Your task to perform on an android device: toggle show notifications on the lock screen Image 0: 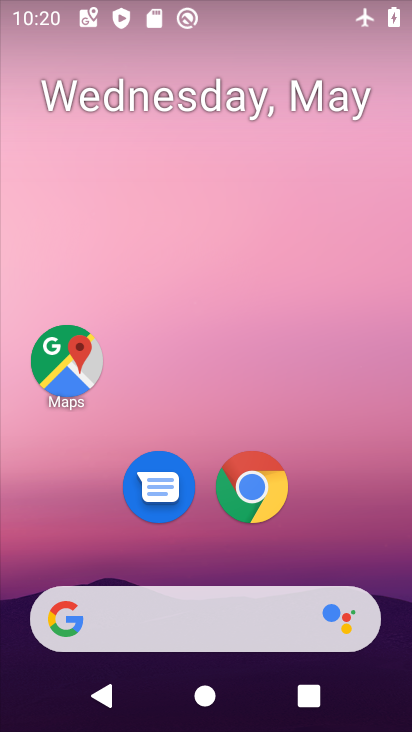
Step 0: drag from (199, 556) to (194, 4)
Your task to perform on an android device: toggle show notifications on the lock screen Image 1: 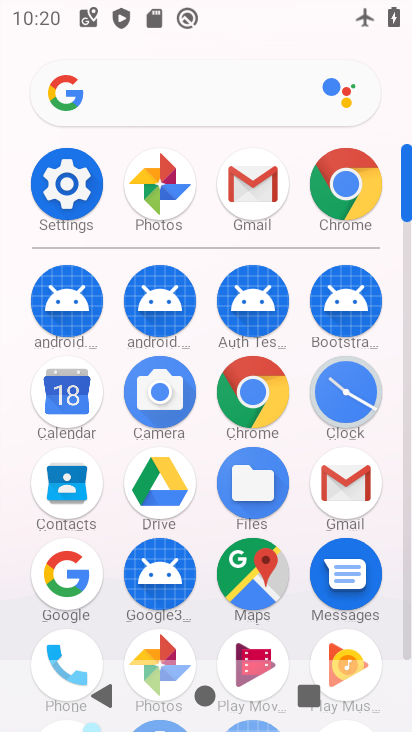
Step 1: click (69, 207)
Your task to perform on an android device: toggle show notifications on the lock screen Image 2: 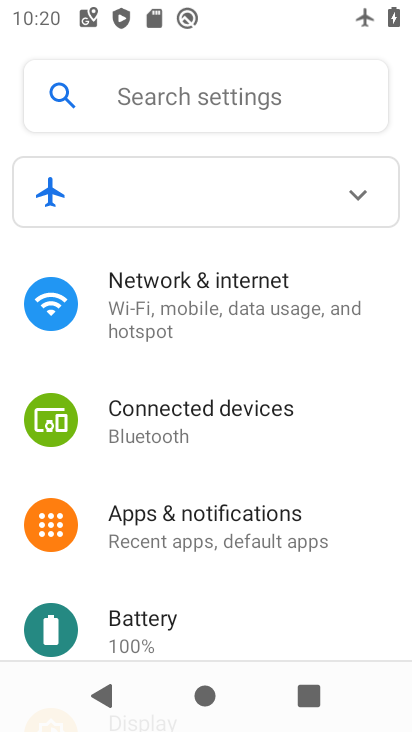
Step 2: drag from (273, 566) to (265, 481)
Your task to perform on an android device: toggle show notifications on the lock screen Image 3: 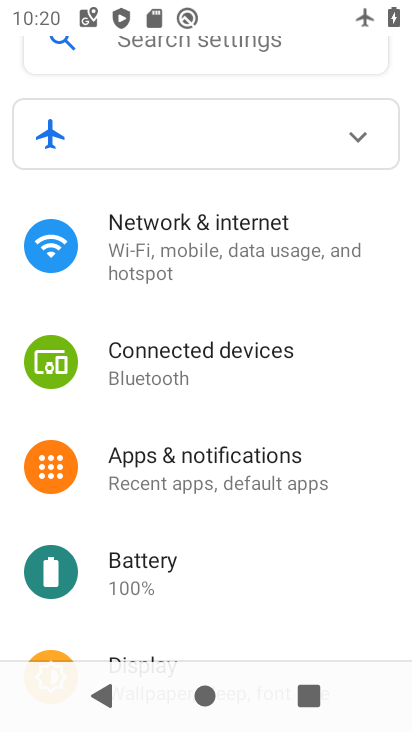
Step 3: click (262, 481)
Your task to perform on an android device: toggle show notifications on the lock screen Image 4: 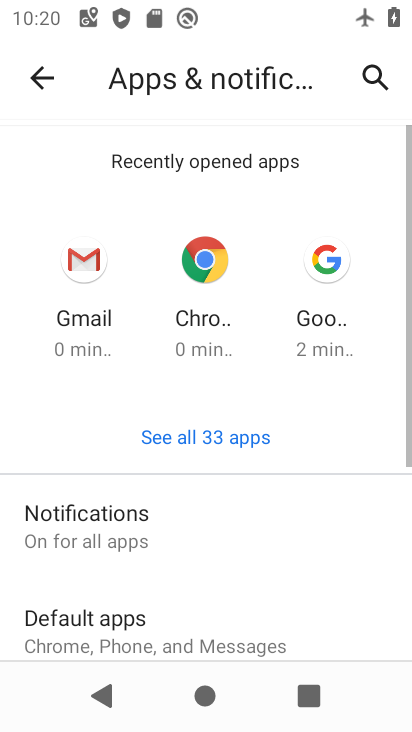
Step 4: click (132, 518)
Your task to perform on an android device: toggle show notifications on the lock screen Image 5: 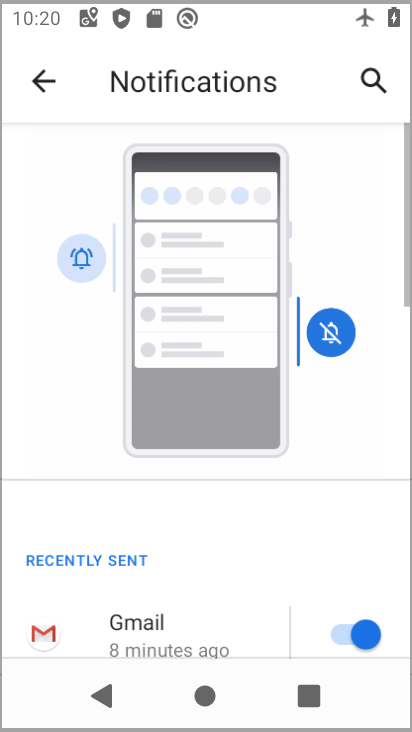
Step 5: drag from (229, 557) to (220, 13)
Your task to perform on an android device: toggle show notifications on the lock screen Image 6: 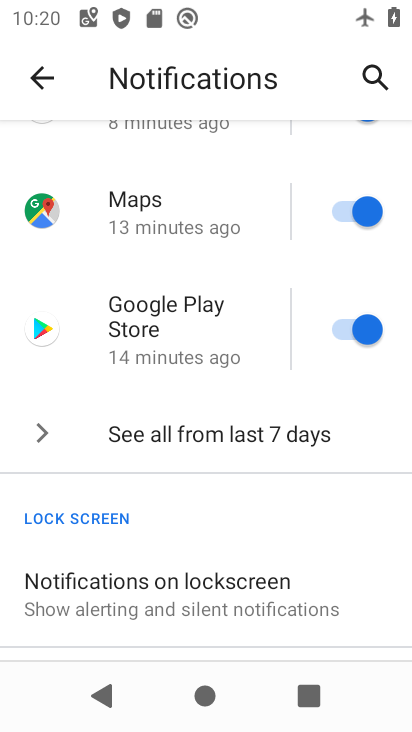
Step 6: click (215, 569)
Your task to perform on an android device: toggle show notifications on the lock screen Image 7: 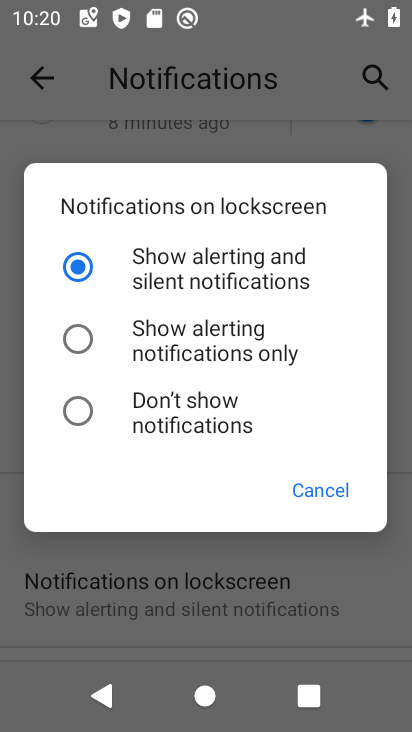
Step 7: task complete